Your task to perform on an android device: Open the web browser Image 0: 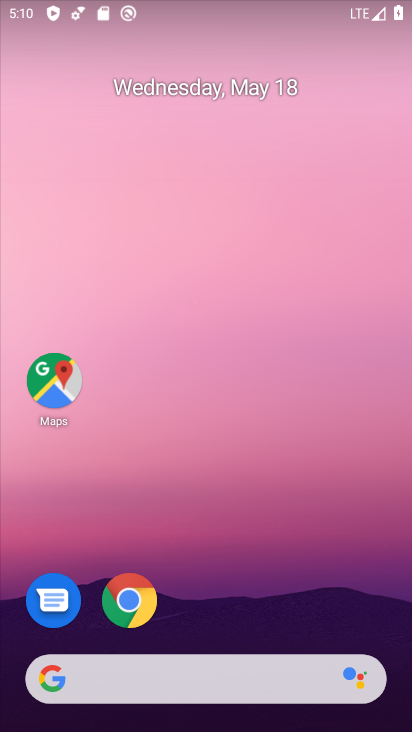
Step 0: click (128, 601)
Your task to perform on an android device: Open the web browser Image 1: 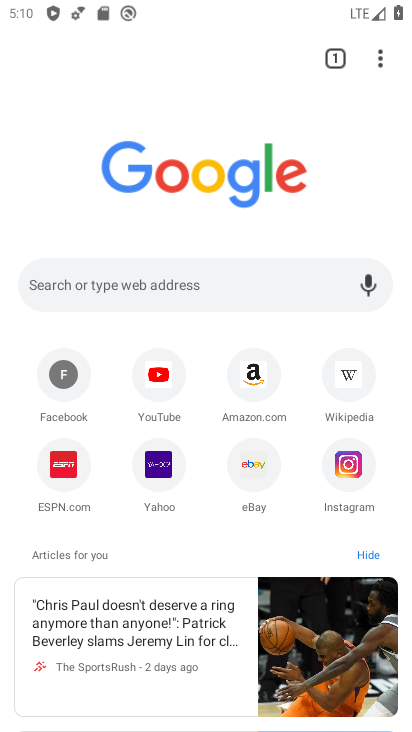
Step 1: task complete